Your task to perform on an android device: turn on location history Image 0: 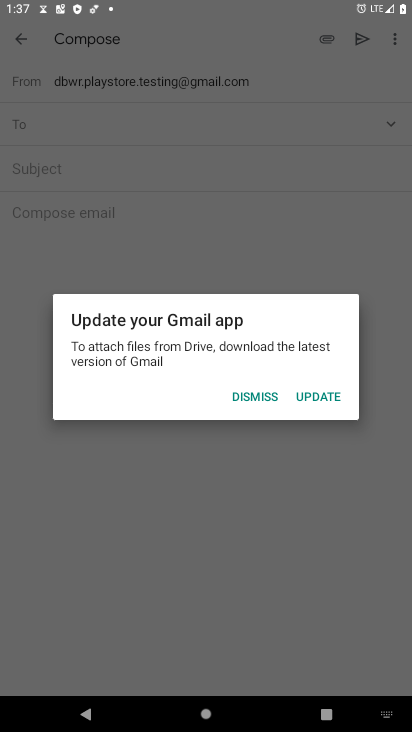
Step 0: press home button
Your task to perform on an android device: turn on location history Image 1: 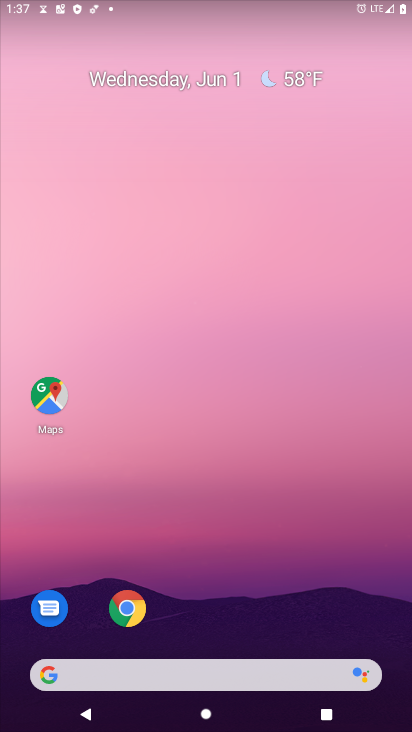
Step 1: drag from (196, 550) to (337, 516)
Your task to perform on an android device: turn on location history Image 2: 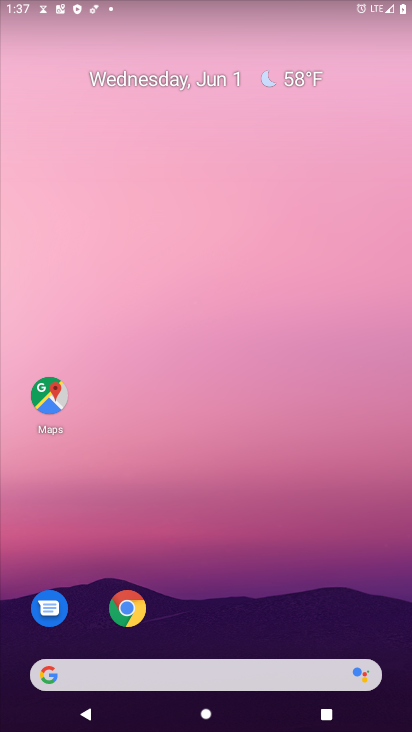
Step 2: drag from (192, 594) to (291, 267)
Your task to perform on an android device: turn on location history Image 3: 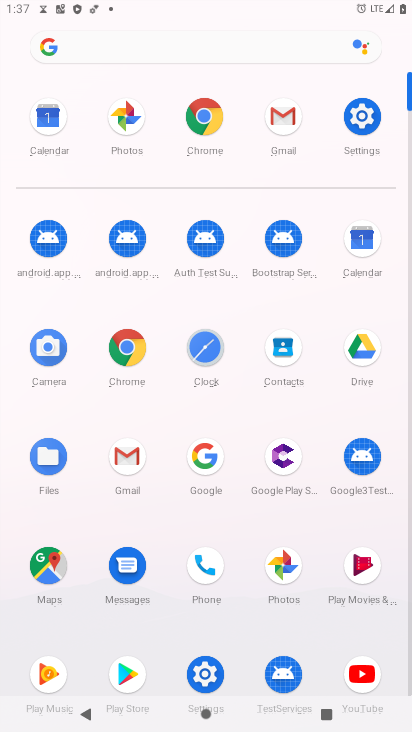
Step 3: click (373, 110)
Your task to perform on an android device: turn on location history Image 4: 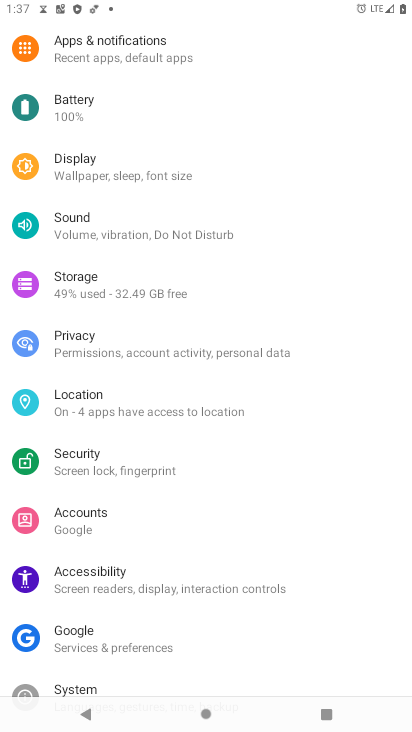
Step 4: click (99, 395)
Your task to perform on an android device: turn on location history Image 5: 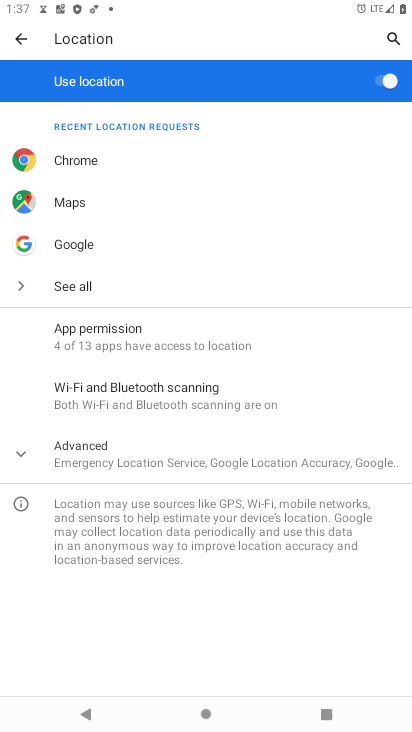
Step 5: click (144, 448)
Your task to perform on an android device: turn on location history Image 6: 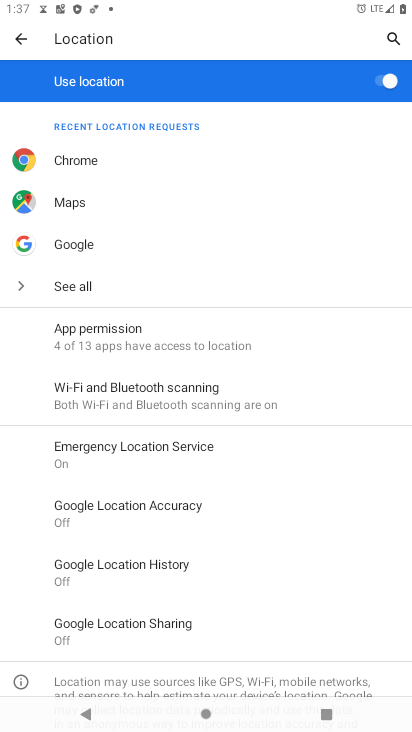
Step 6: click (108, 578)
Your task to perform on an android device: turn on location history Image 7: 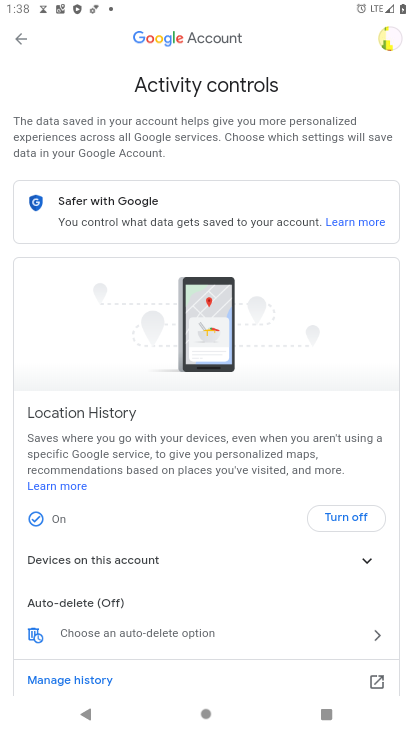
Step 7: task complete